Your task to perform on an android device: uninstall "LiveIn - Share Your Moment" Image 0: 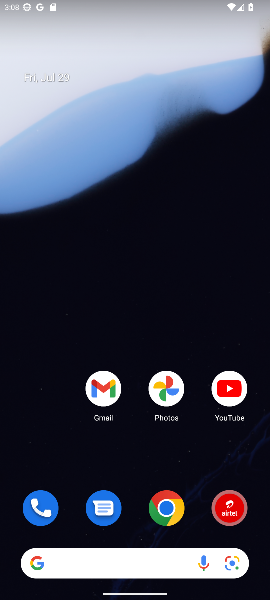
Step 0: drag from (210, 474) to (123, 38)
Your task to perform on an android device: uninstall "LiveIn - Share Your Moment" Image 1: 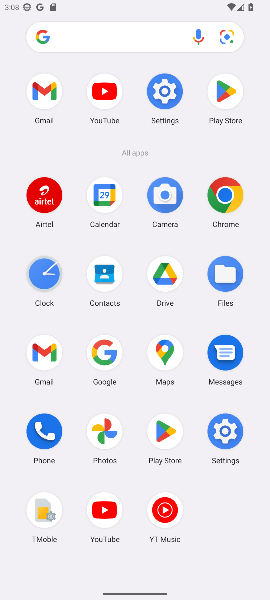
Step 1: click (224, 94)
Your task to perform on an android device: uninstall "LiveIn - Share Your Moment" Image 2: 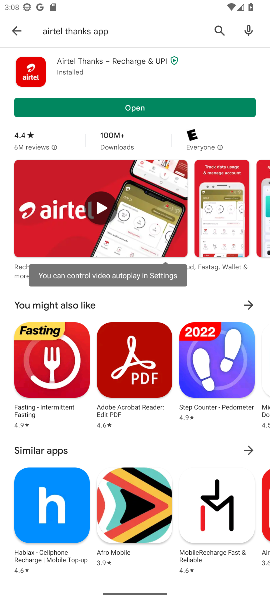
Step 2: press back button
Your task to perform on an android device: uninstall "LiveIn - Share Your Moment" Image 3: 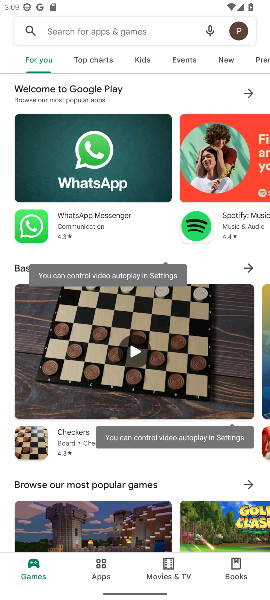
Step 3: click (87, 29)
Your task to perform on an android device: uninstall "LiveIn - Share Your Moment" Image 4: 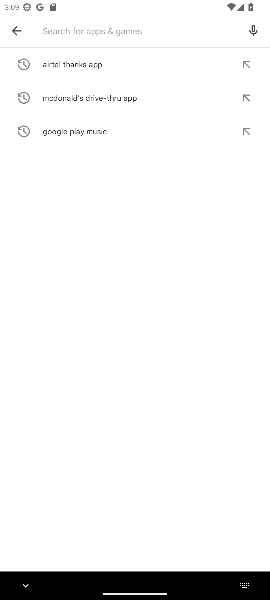
Step 4: type "LiveIn - Share Your Moment"
Your task to perform on an android device: uninstall "LiveIn - Share Your Moment" Image 5: 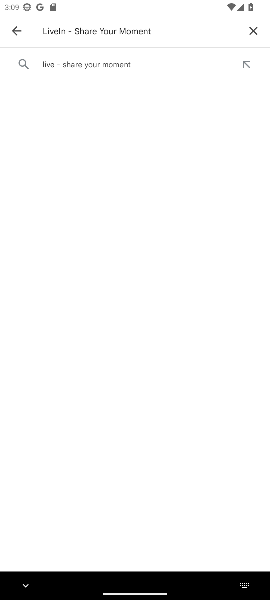
Step 5: click (57, 61)
Your task to perform on an android device: uninstall "LiveIn - Share Your Moment" Image 6: 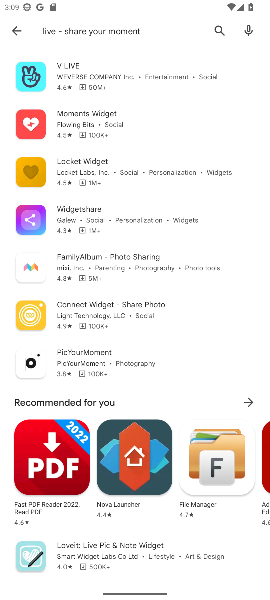
Step 6: task complete